Your task to perform on an android device: Show me the alarms in the clock app Image 0: 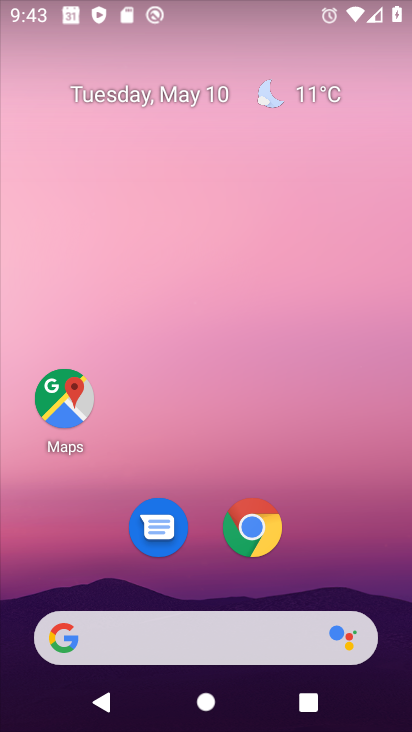
Step 0: drag from (335, 554) to (307, 32)
Your task to perform on an android device: Show me the alarms in the clock app Image 1: 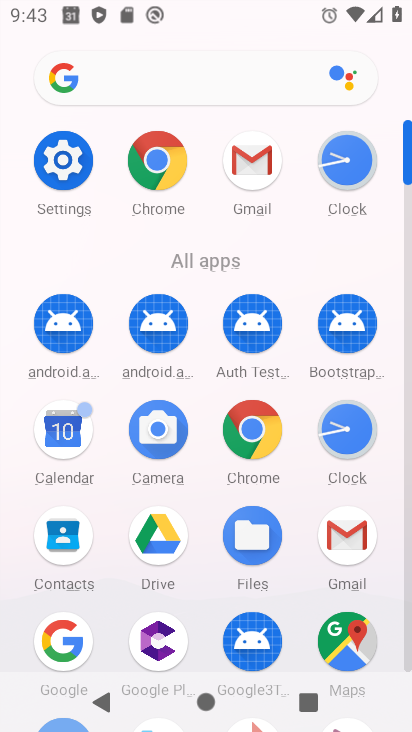
Step 1: click (362, 426)
Your task to perform on an android device: Show me the alarms in the clock app Image 2: 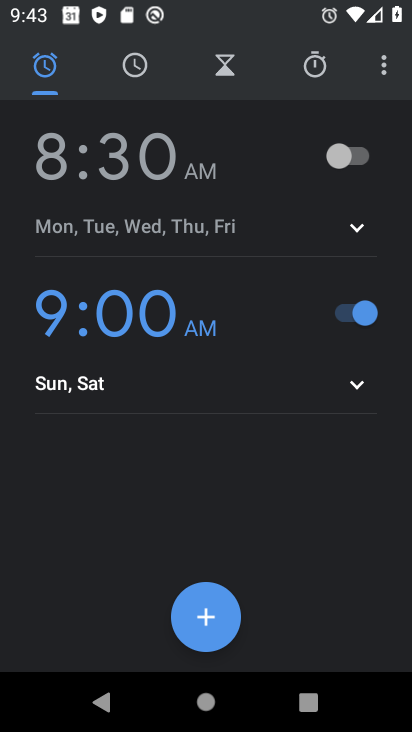
Step 2: task complete